Your task to perform on an android device: delete location history Image 0: 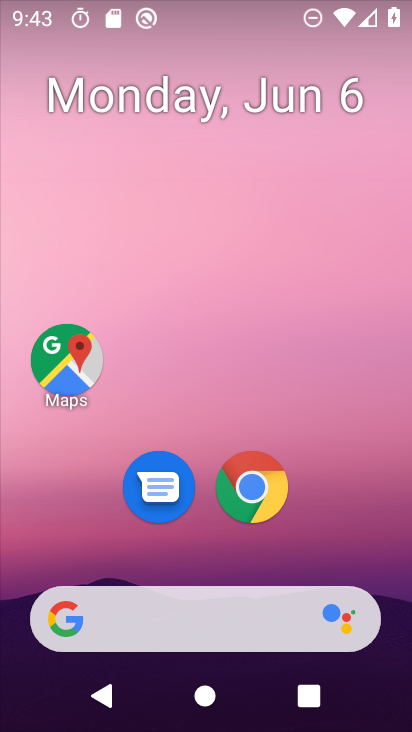
Step 0: drag from (394, 619) to (316, 31)
Your task to perform on an android device: delete location history Image 1: 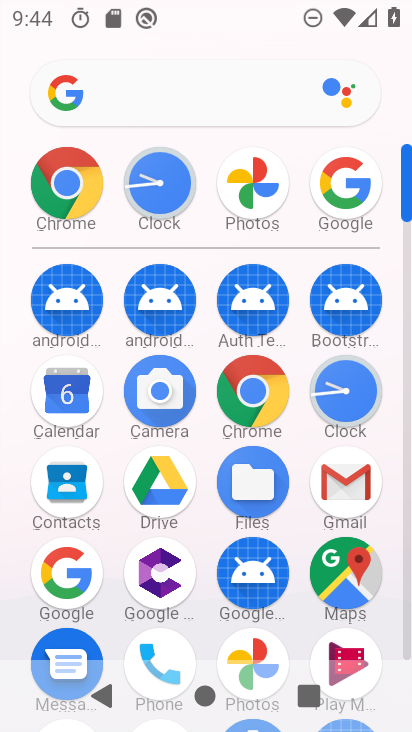
Step 1: drag from (120, 604) to (122, 233)
Your task to perform on an android device: delete location history Image 2: 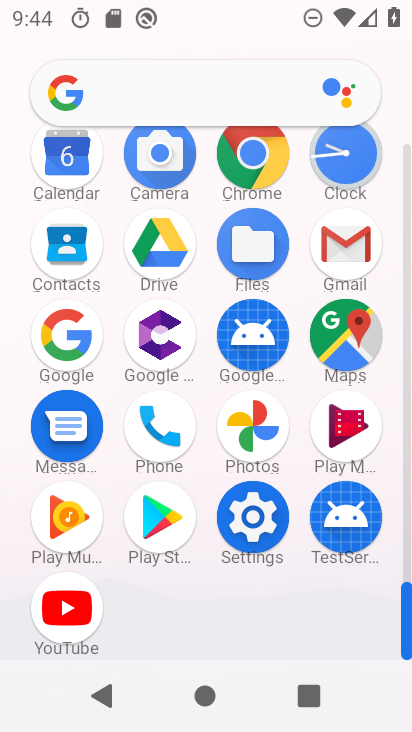
Step 2: click (232, 517)
Your task to perform on an android device: delete location history Image 3: 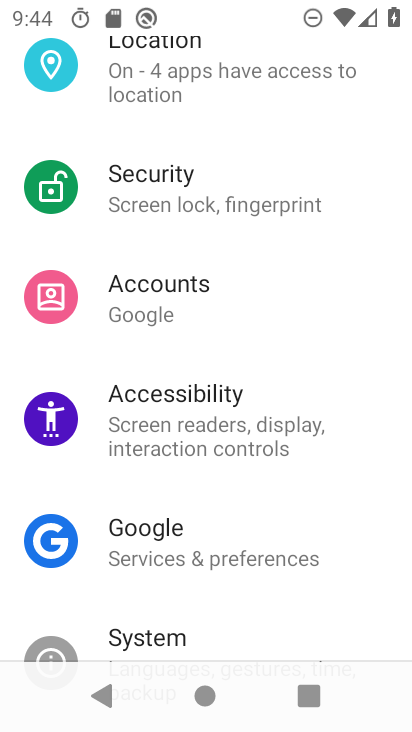
Step 3: click (164, 81)
Your task to perform on an android device: delete location history Image 4: 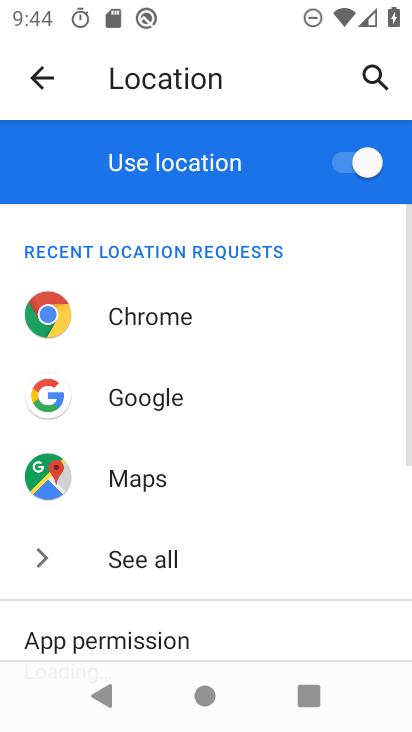
Step 4: drag from (223, 631) to (209, 161)
Your task to perform on an android device: delete location history Image 5: 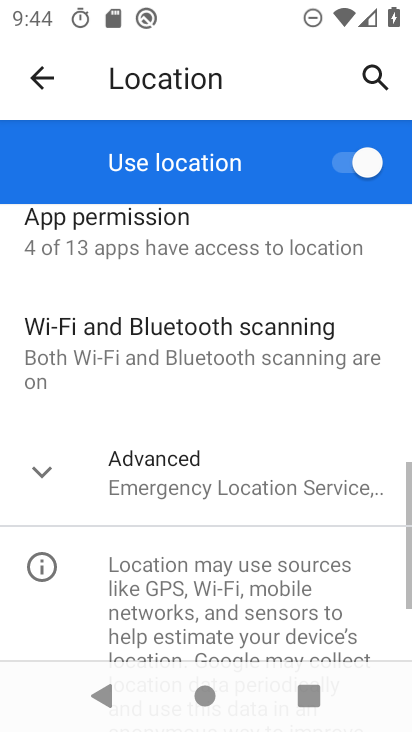
Step 5: click (147, 485)
Your task to perform on an android device: delete location history Image 6: 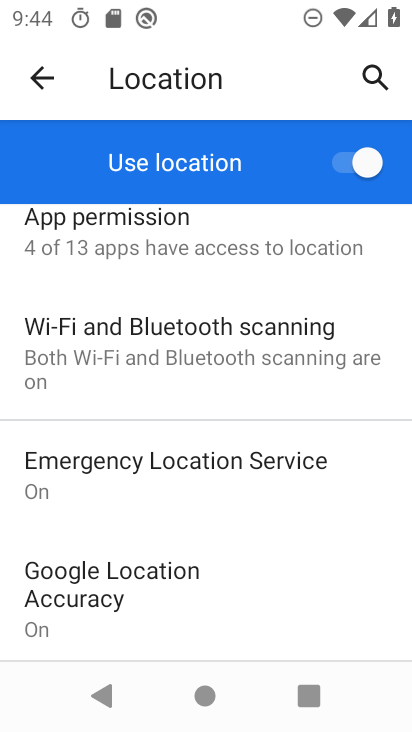
Step 6: drag from (153, 616) to (186, 243)
Your task to perform on an android device: delete location history Image 7: 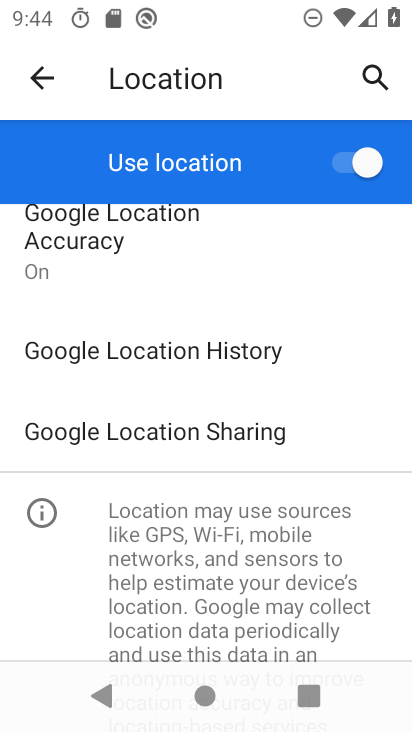
Step 7: click (183, 365)
Your task to perform on an android device: delete location history Image 8: 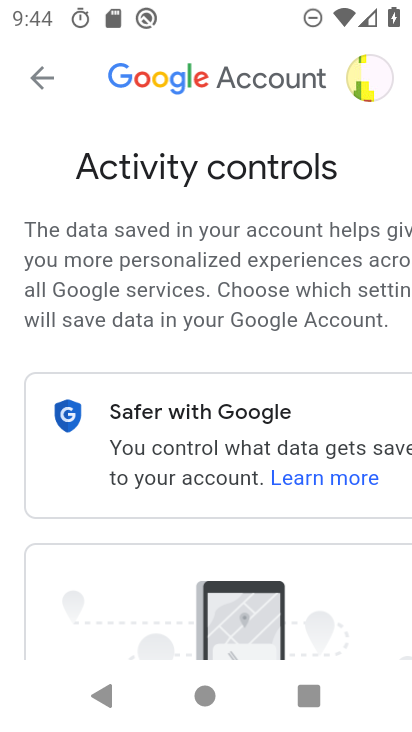
Step 8: drag from (303, 603) to (249, 169)
Your task to perform on an android device: delete location history Image 9: 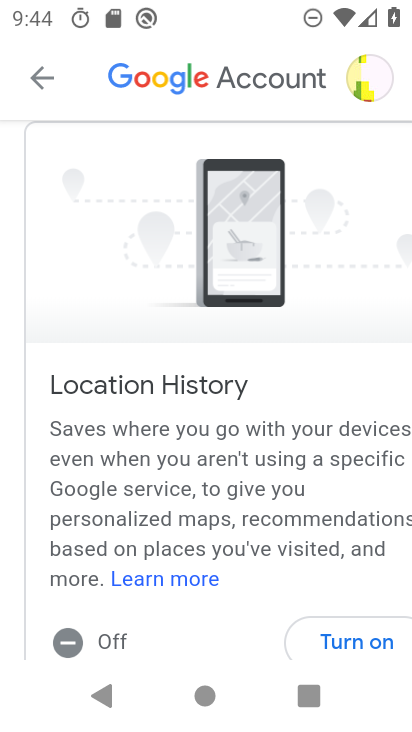
Step 9: click (320, 643)
Your task to perform on an android device: delete location history Image 10: 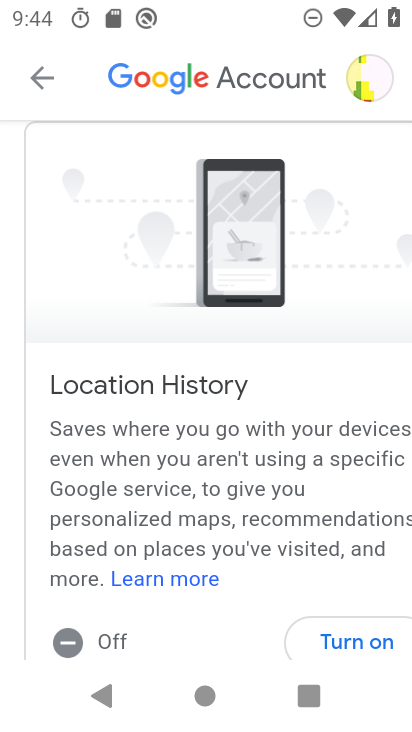
Step 10: drag from (312, 469) to (285, 297)
Your task to perform on an android device: delete location history Image 11: 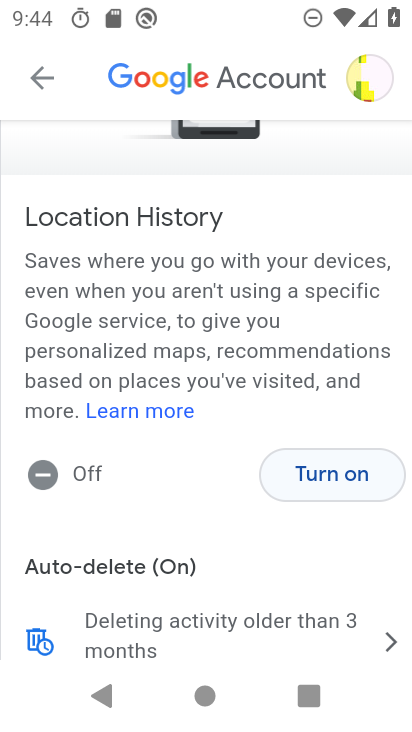
Step 11: drag from (278, 524) to (241, 208)
Your task to perform on an android device: delete location history Image 12: 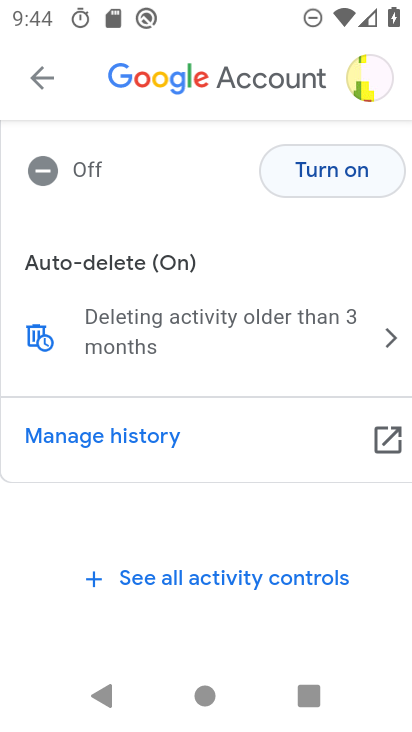
Step 12: click (266, 340)
Your task to perform on an android device: delete location history Image 13: 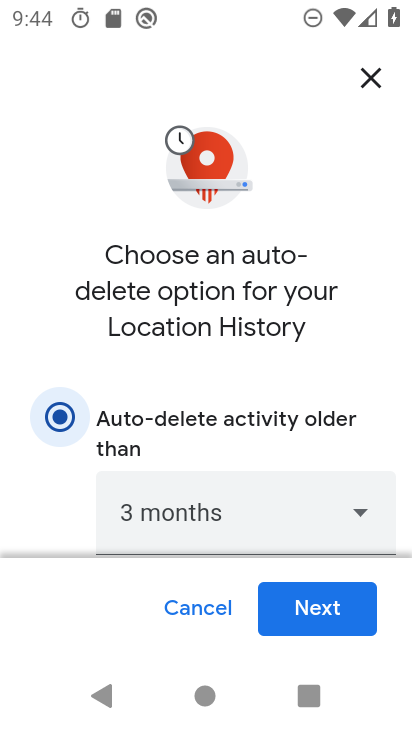
Step 13: click (317, 608)
Your task to perform on an android device: delete location history Image 14: 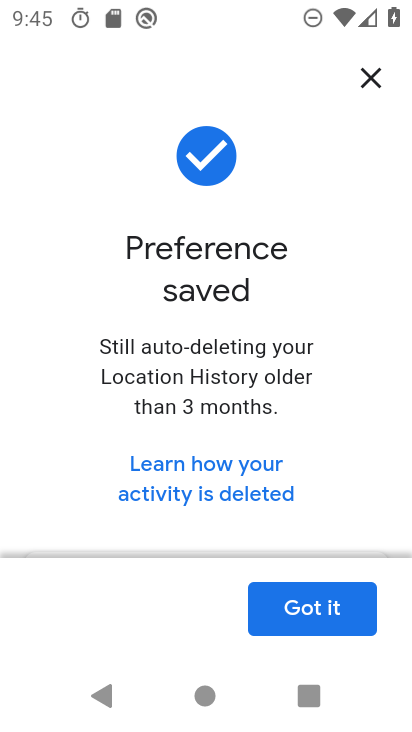
Step 14: click (292, 609)
Your task to perform on an android device: delete location history Image 15: 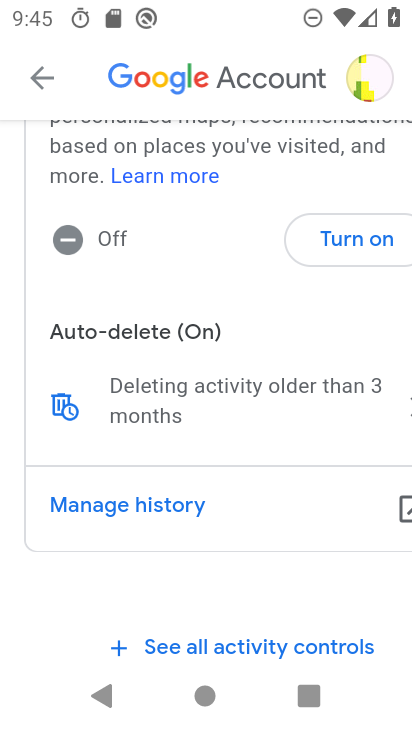
Step 15: task complete